Your task to perform on an android device: What's the weather today? Image 0: 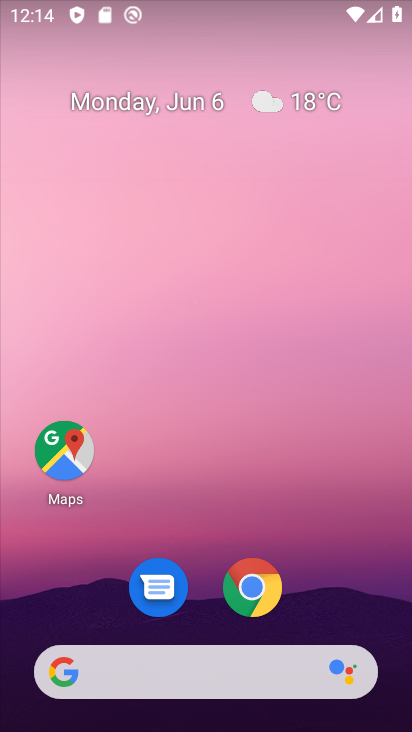
Step 0: drag from (357, 602) to (363, 58)
Your task to perform on an android device: What's the weather today? Image 1: 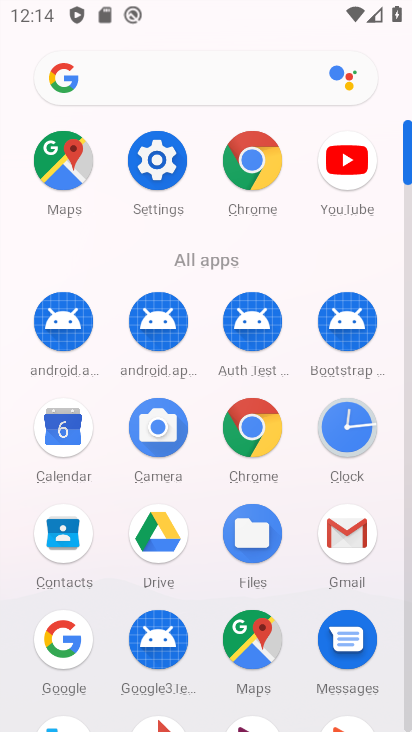
Step 1: click (275, 441)
Your task to perform on an android device: What's the weather today? Image 2: 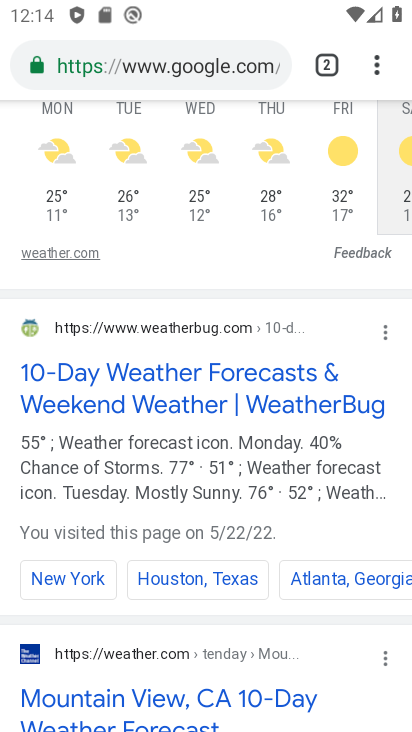
Step 2: drag from (221, 154) to (228, 538)
Your task to perform on an android device: What's the weather today? Image 3: 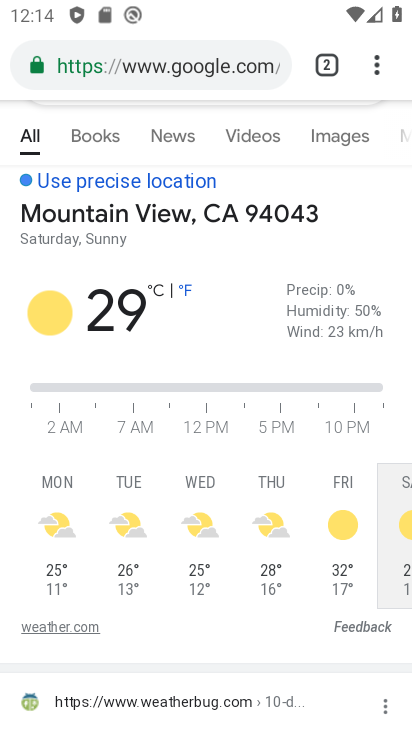
Step 3: click (252, 59)
Your task to perform on an android device: What's the weather today? Image 4: 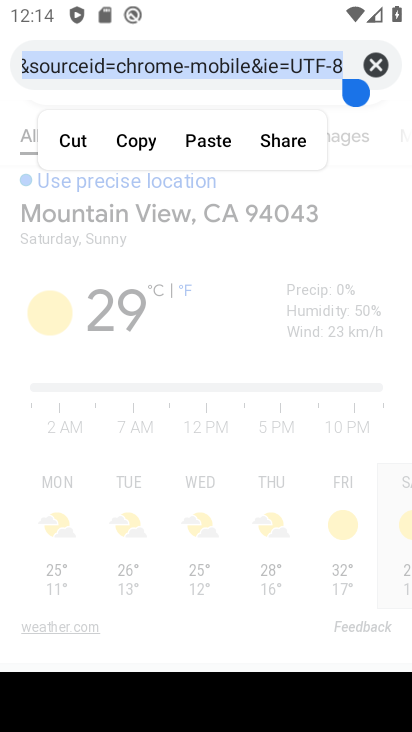
Step 4: click (379, 64)
Your task to perform on an android device: What's the weather today? Image 5: 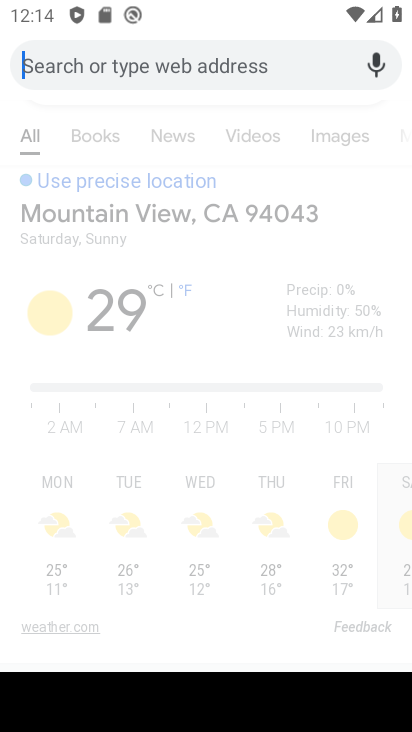
Step 5: type "what's the weather today"
Your task to perform on an android device: What's the weather today? Image 6: 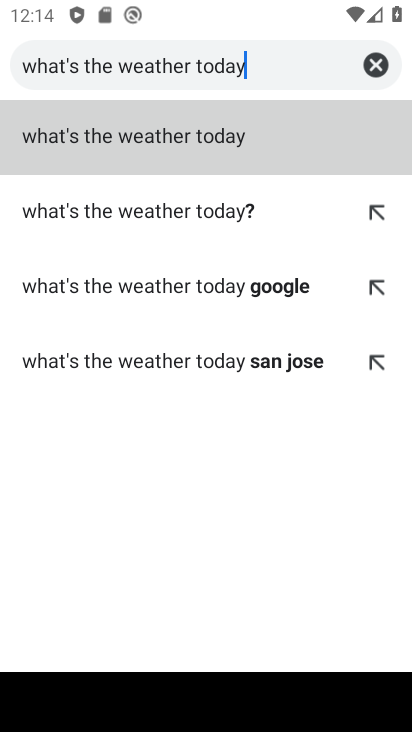
Step 6: click (231, 159)
Your task to perform on an android device: What's the weather today? Image 7: 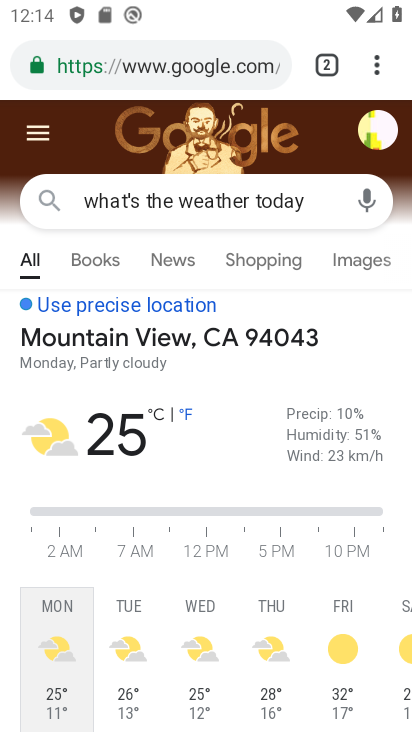
Step 7: task complete